Your task to perform on an android device: Go to notification settings Image 0: 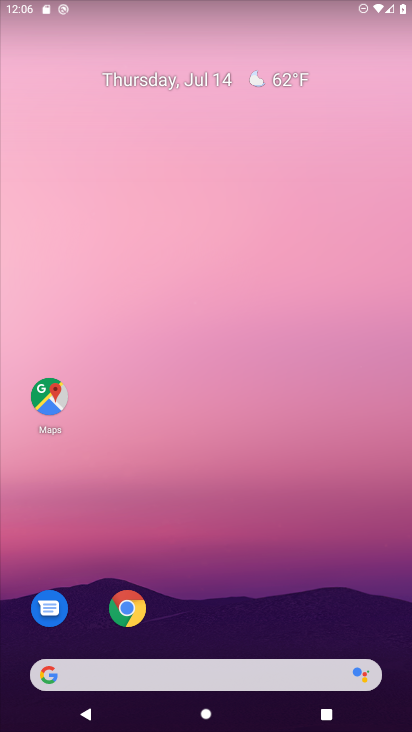
Step 0: drag from (281, 471) to (278, 200)
Your task to perform on an android device: Go to notification settings Image 1: 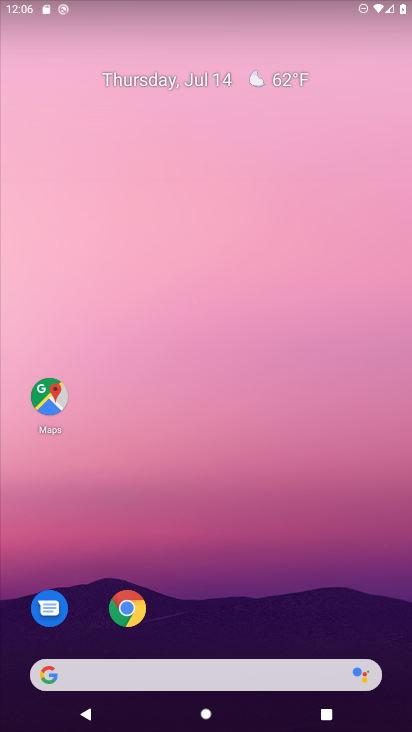
Step 1: drag from (233, 645) to (217, 30)
Your task to perform on an android device: Go to notification settings Image 2: 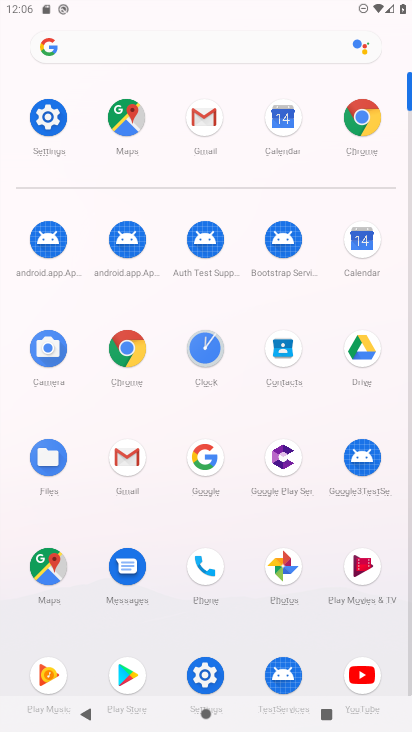
Step 2: click (51, 116)
Your task to perform on an android device: Go to notification settings Image 3: 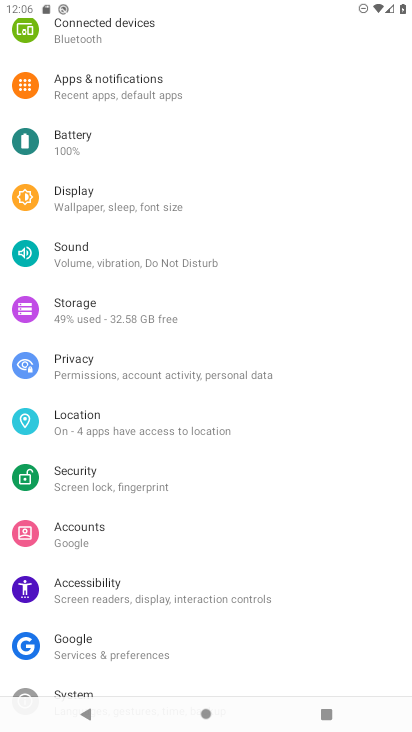
Step 3: click (97, 93)
Your task to perform on an android device: Go to notification settings Image 4: 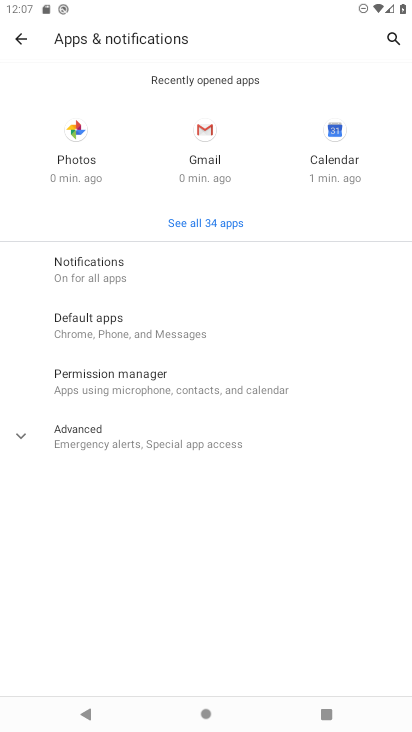
Step 4: click (78, 267)
Your task to perform on an android device: Go to notification settings Image 5: 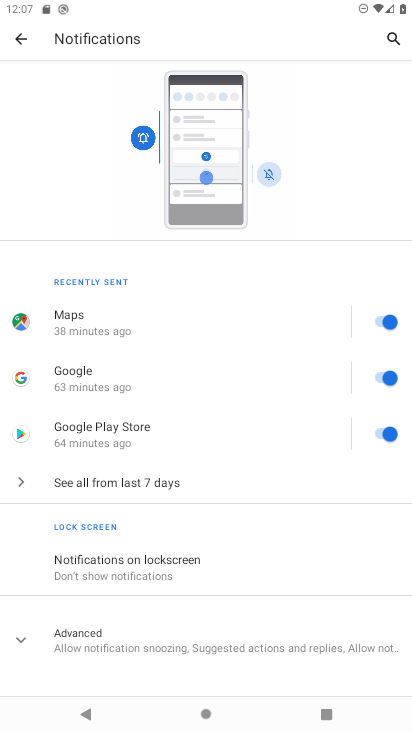
Step 5: task complete